Your task to perform on an android device: delete location history Image 0: 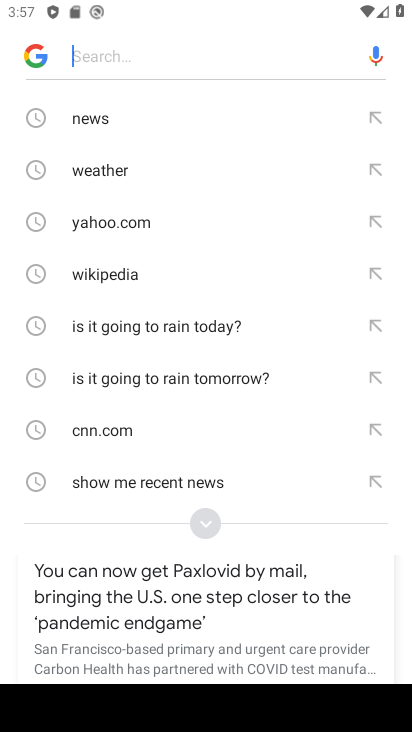
Step 0: press home button
Your task to perform on an android device: delete location history Image 1: 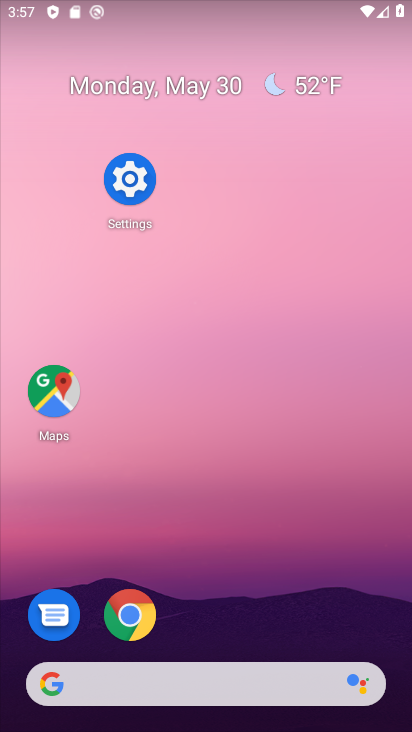
Step 1: click (38, 393)
Your task to perform on an android device: delete location history Image 2: 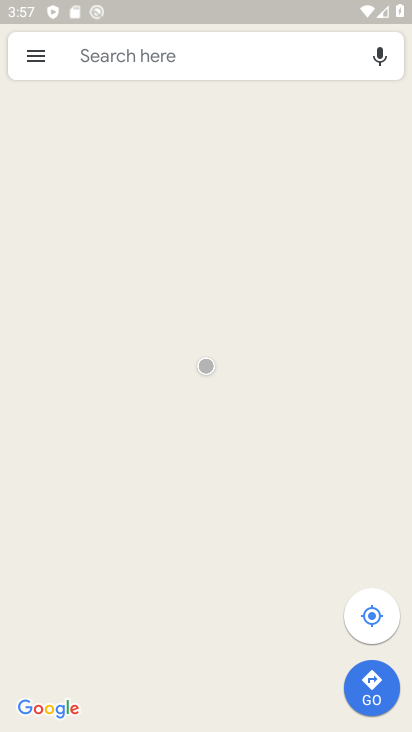
Step 2: click (39, 53)
Your task to perform on an android device: delete location history Image 3: 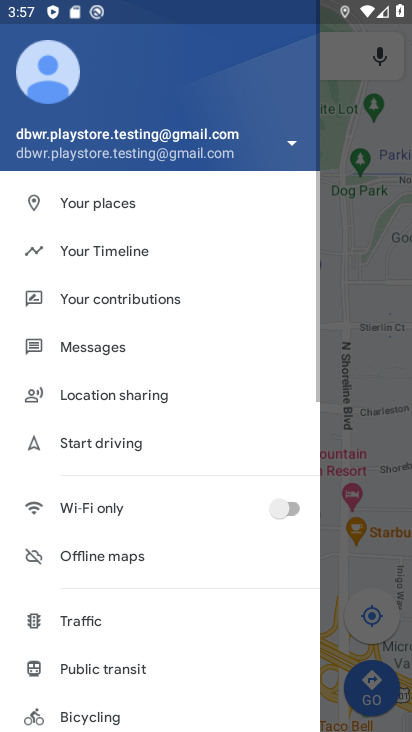
Step 3: click (148, 252)
Your task to perform on an android device: delete location history Image 4: 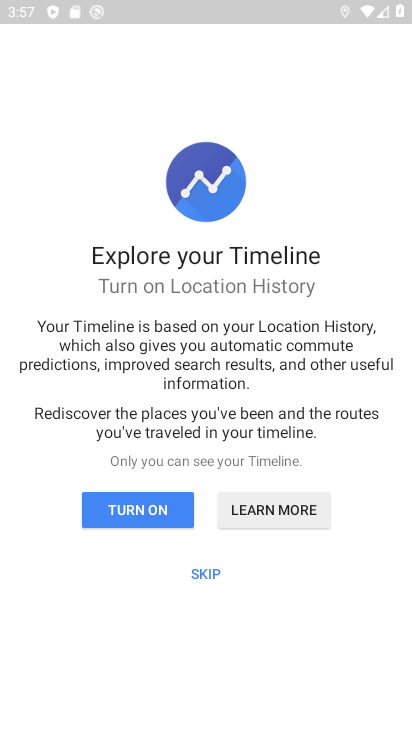
Step 4: click (205, 579)
Your task to perform on an android device: delete location history Image 5: 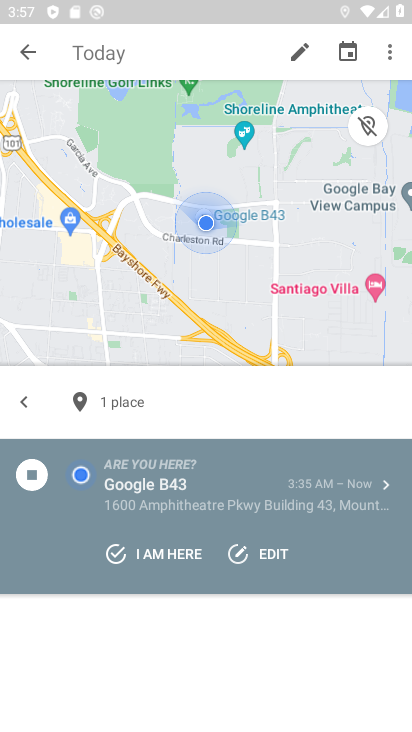
Step 5: click (383, 36)
Your task to perform on an android device: delete location history Image 6: 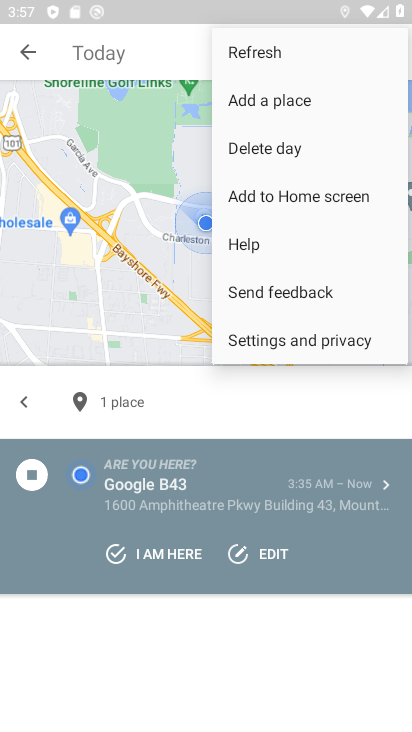
Step 6: click (323, 354)
Your task to perform on an android device: delete location history Image 7: 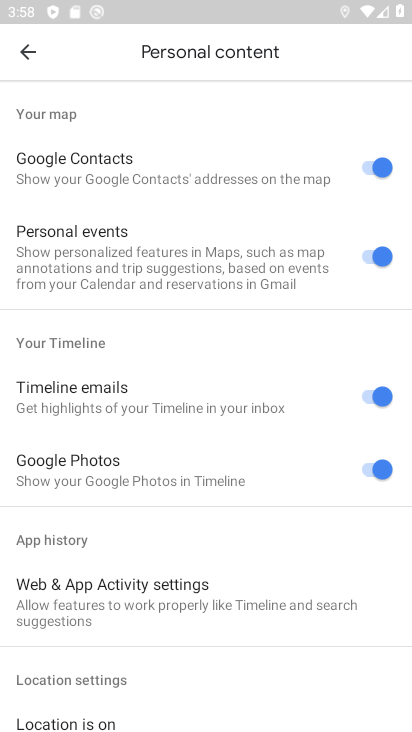
Step 7: drag from (131, 643) to (106, 150)
Your task to perform on an android device: delete location history Image 8: 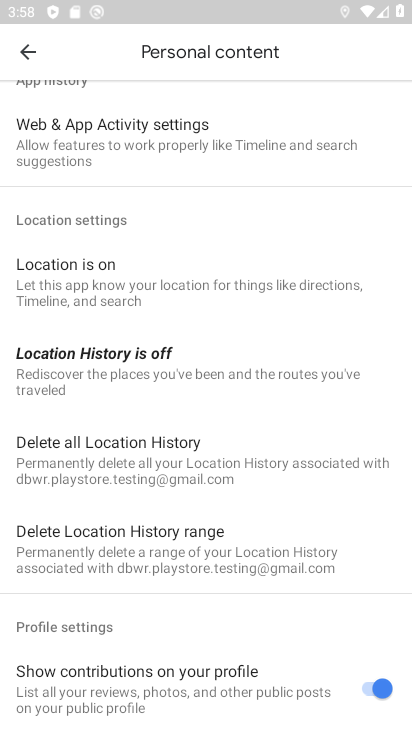
Step 8: click (150, 455)
Your task to perform on an android device: delete location history Image 9: 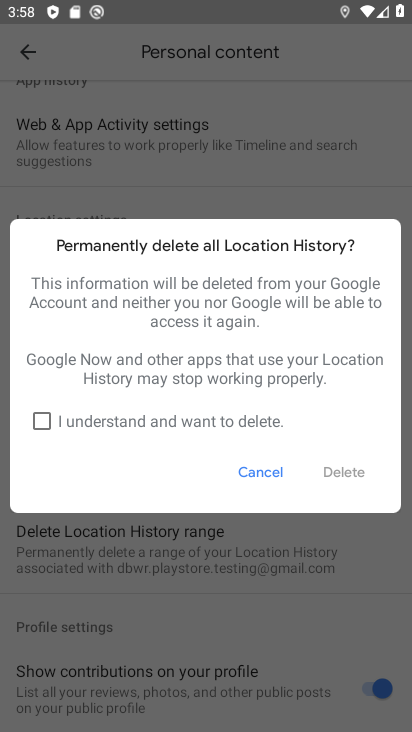
Step 9: click (282, 414)
Your task to perform on an android device: delete location history Image 10: 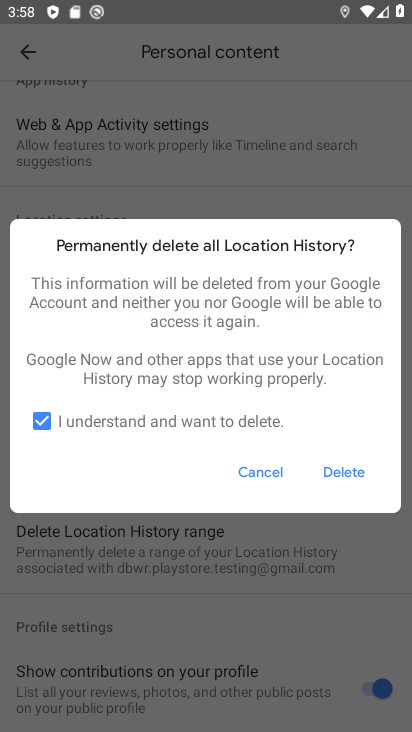
Step 10: click (340, 475)
Your task to perform on an android device: delete location history Image 11: 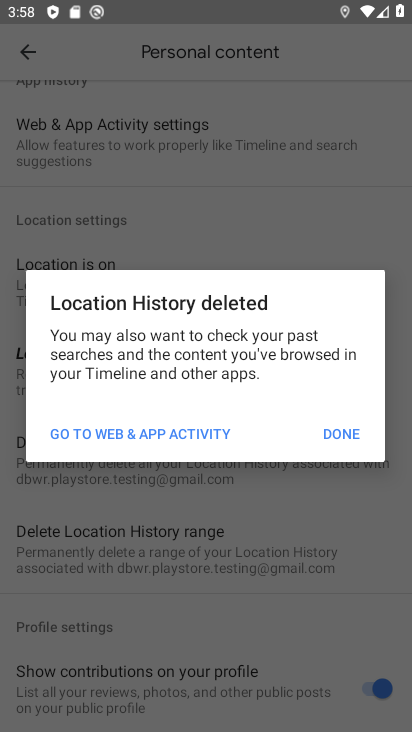
Step 11: task complete